Your task to perform on an android device: What's the weather? Image 0: 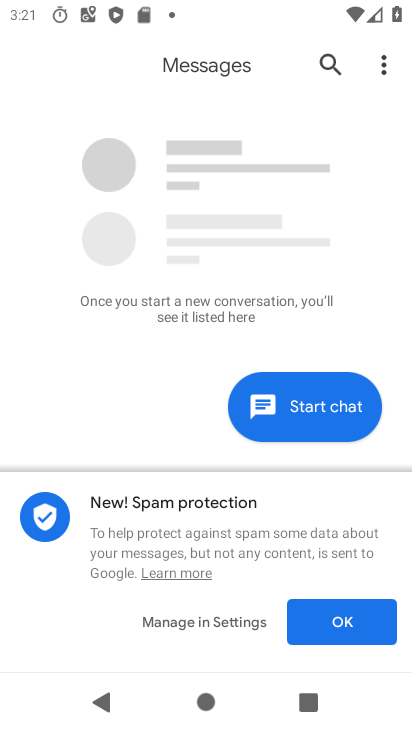
Step 0: press home button
Your task to perform on an android device: What's the weather? Image 1: 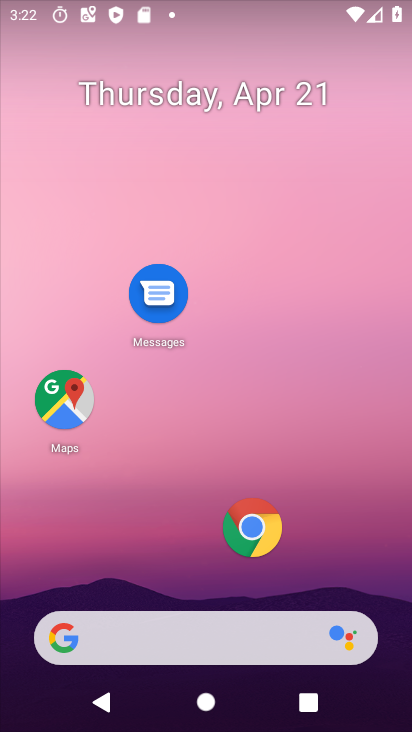
Step 1: drag from (156, 617) to (180, 411)
Your task to perform on an android device: What's the weather? Image 2: 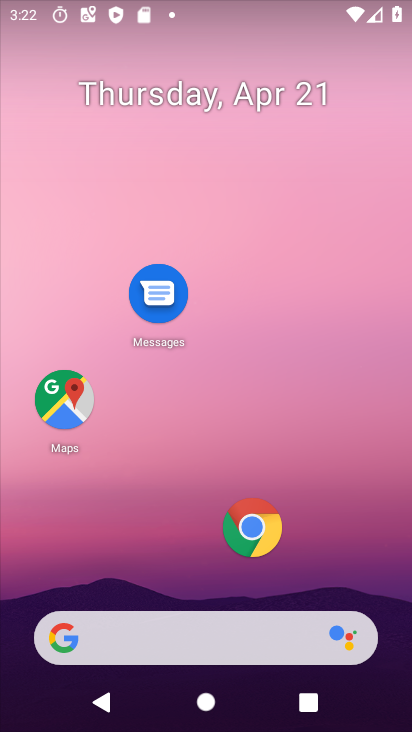
Step 2: drag from (270, 610) to (357, 235)
Your task to perform on an android device: What's the weather? Image 3: 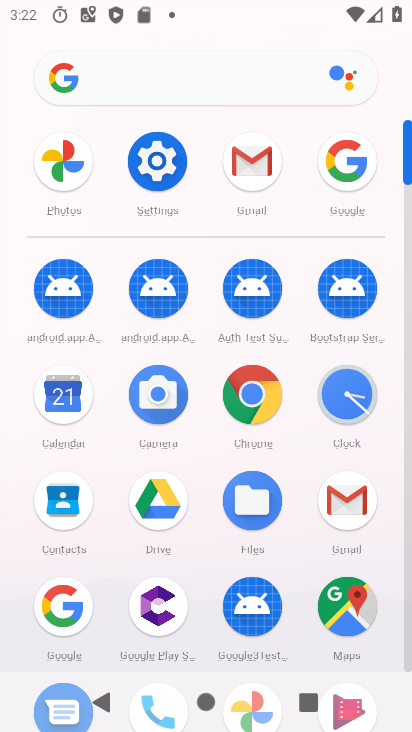
Step 3: drag from (207, 632) to (228, 394)
Your task to perform on an android device: What's the weather? Image 4: 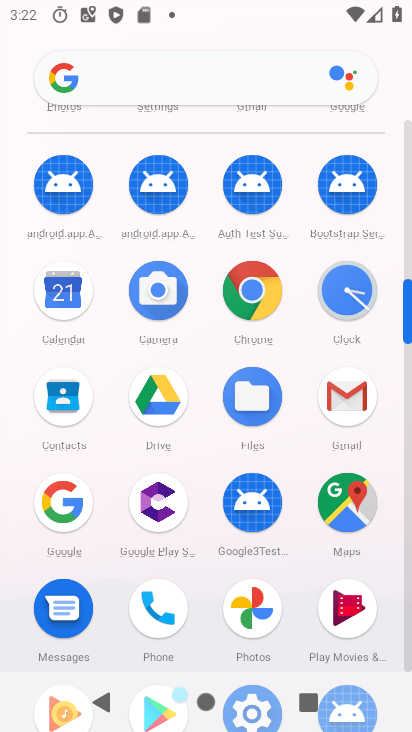
Step 4: click (61, 504)
Your task to perform on an android device: What's the weather? Image 5: 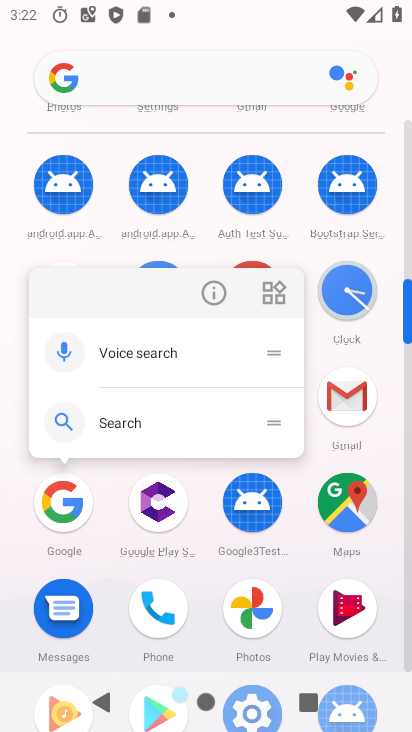
Step 5: click (61, 504)
Your task to perform on an android device: What's the weather? Image 6: 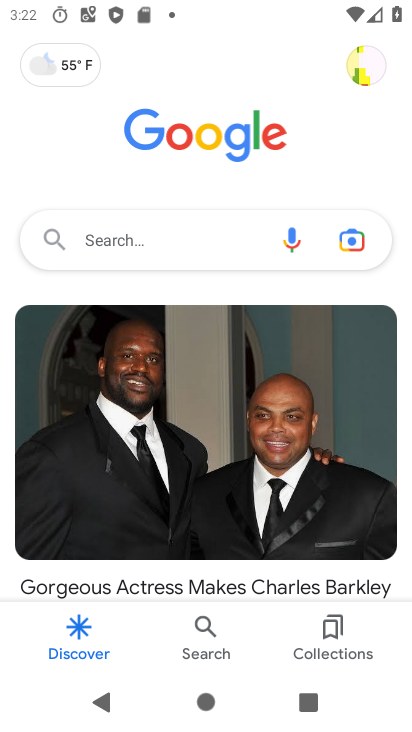
Step 6: click (73, 66)
Your task to perform on an android device: What's the weather? Image 7: 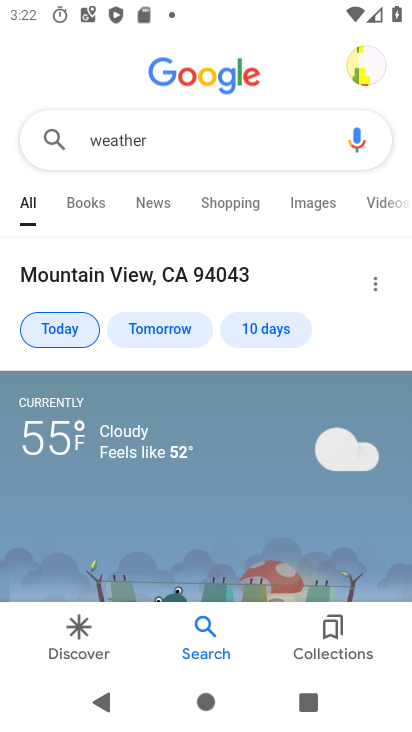
Step 7: task complete